Your task to perform on an android device: When is my next appointment? Image 0: 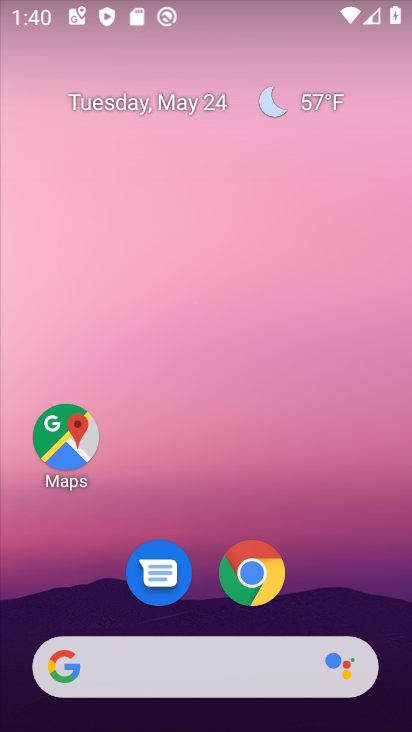
Step 0: drag from (366, 549) to (371, 114)
Your task to perform on an android device: When is my next appointment? Image 1: 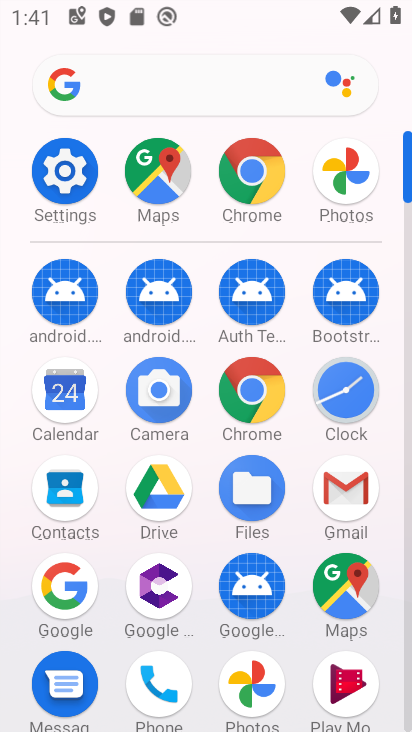
Step 1: click (37, 421)
Your task to perform on an android device: When is my next appointment? Image 2: 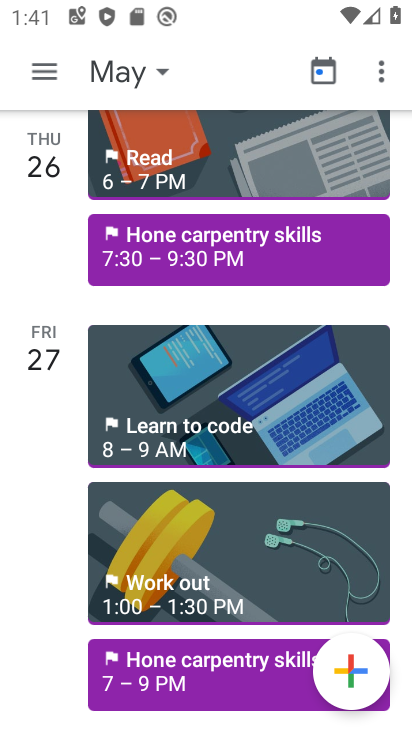
Step 2: click (144, 83)
Your task to perform on an android device: When is my next appointment? Image 3: 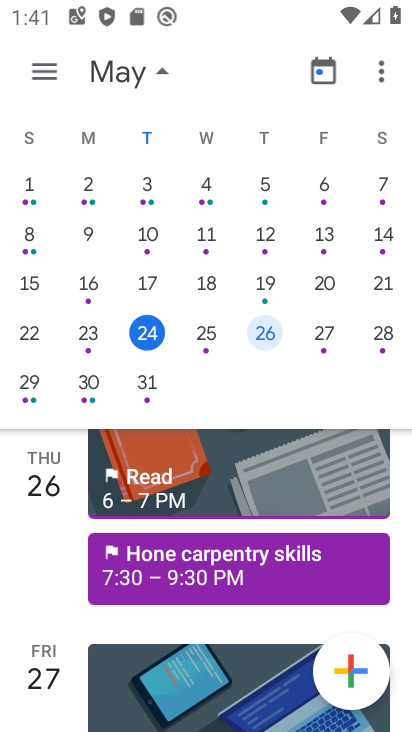
Step 3: drag from (346, 322) to (0, 347)
Your task to perform on an android device: When is my next appointment? Image 4: 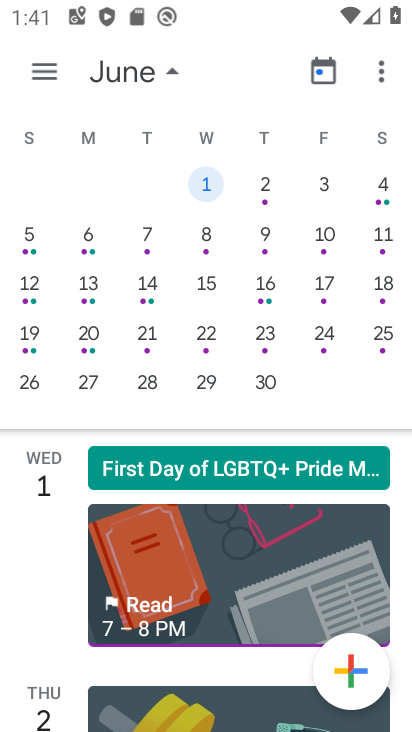
Step 4: click (307, 178)
Your task to perform on an android device: When is my next appointment? Image 5: 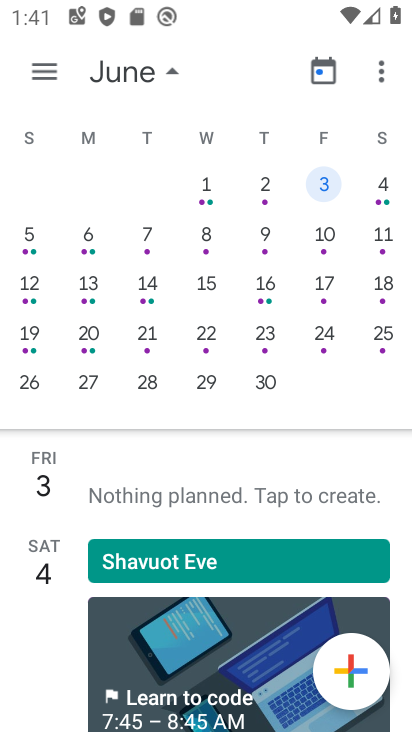
Step 5: drag from (222, 579) to (219, 264)
Your task to perform on an android device: When is my next appointment? Image 6: 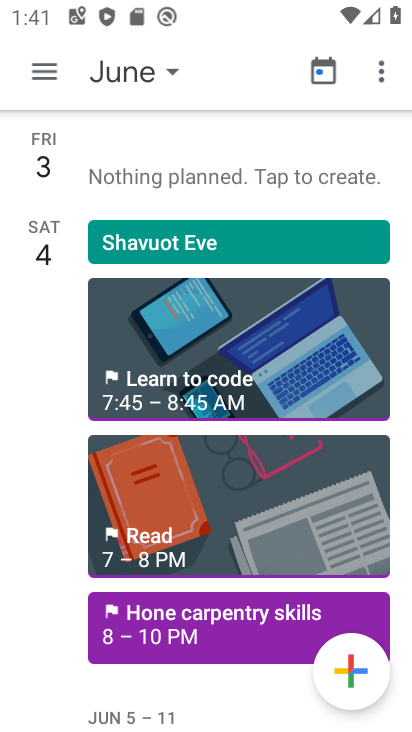
Step 6: drag from (226, 699) to (232, 377)
Your task to perform on an android device: When is my next appointment? Image 7: 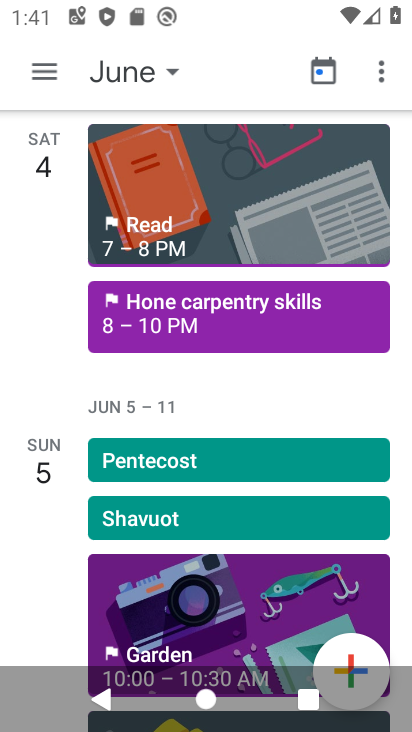
Step 7: drag from (230, 703) to (236, 367)
Your task to perform on an android device: When is my next appointment? Image 8: 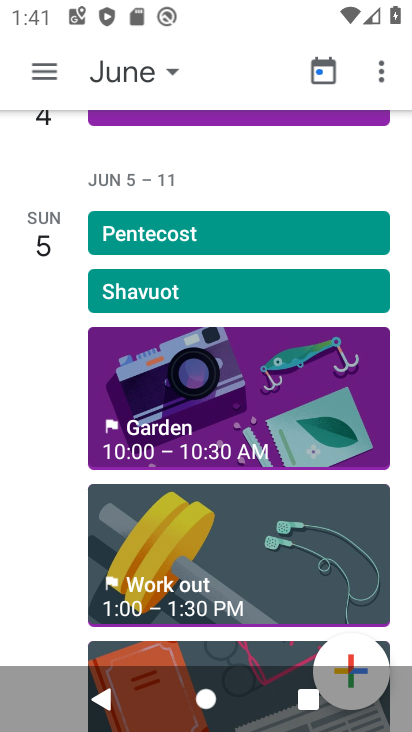
Step 8: drag from (234, 589) to (249, 286)
Your task to perform on an android device: When is my next appointment? Image 9: 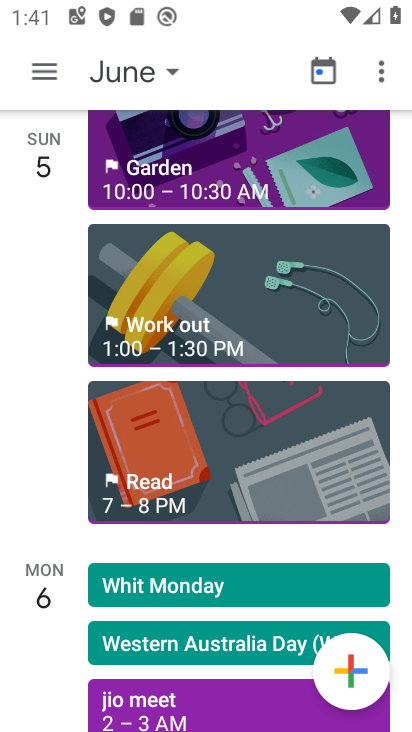
Step 9: drag from (226, 566) to (239, 287)
Your task to perform on an android device: When is my next appointment? Image 10: 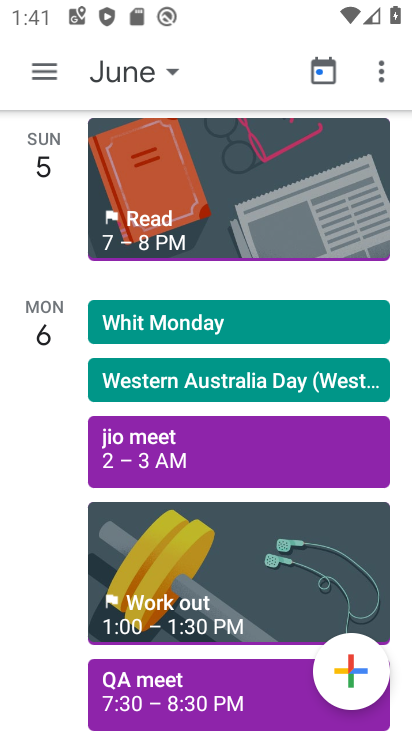
Step 10: click (174, 462)
Your task to perform on an android device: When is my next appointment? Image 11: 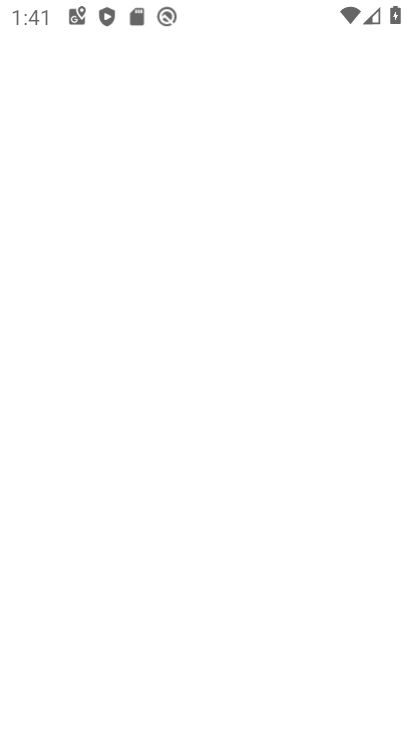
Step 11: task complete